Your task to perform on an android device: choose inbox layout in the gmail app Image 0: 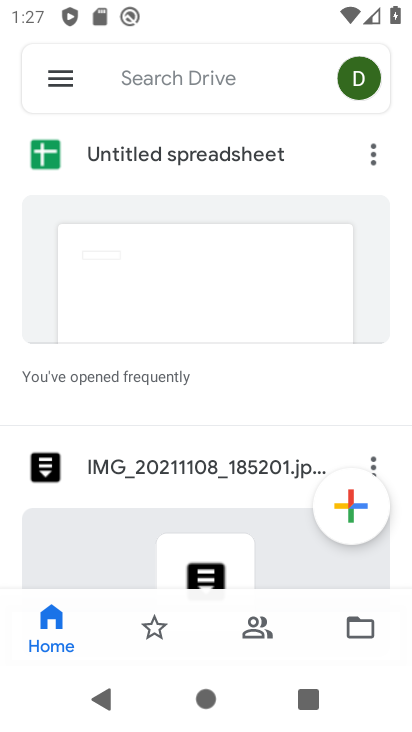
Step 0: press back button
Your task to perform on an android device: choose inbox layout in the gmail app Image 1: 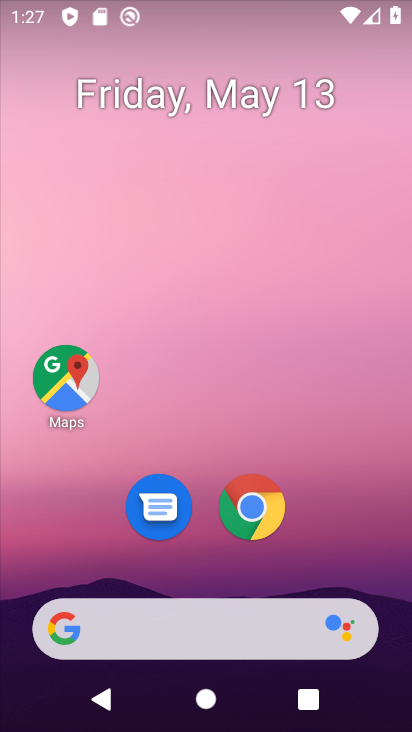
Step 1: drag from (91, 604) to (265, 162)
Your task to perform on an android device: choose inbox layout in the gmail app Image 2: 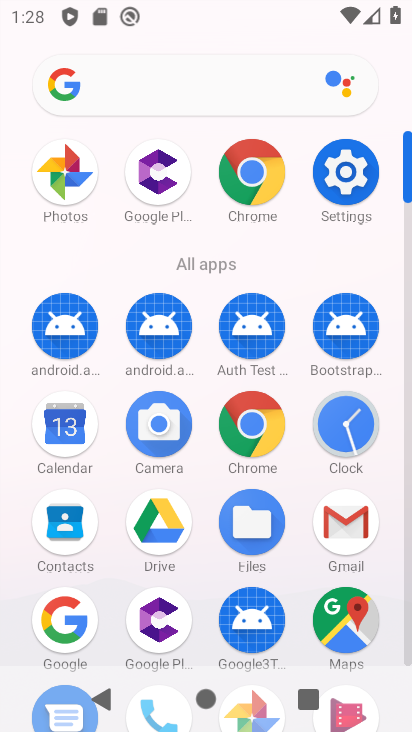
Step 2: click (352, 527)
Your task to perform on an android device: choose inbox layout in the gmail app Image 3: 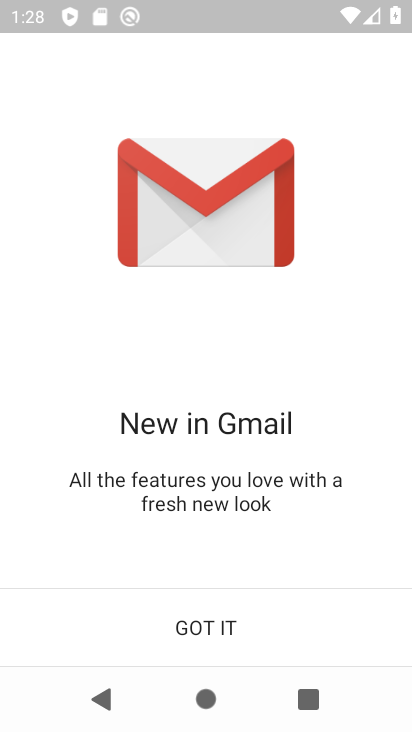
Step 3: click (270, 624)
Your task to perform on an android device: choose inbox layout in the gmail app Image 4: 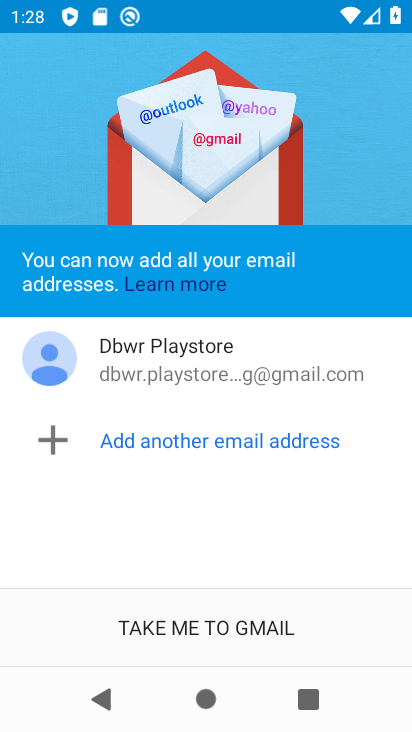
Step 4: click (270, 624)
Your task to perform on an android device: choose inbox layout in the gmail app Image 5: 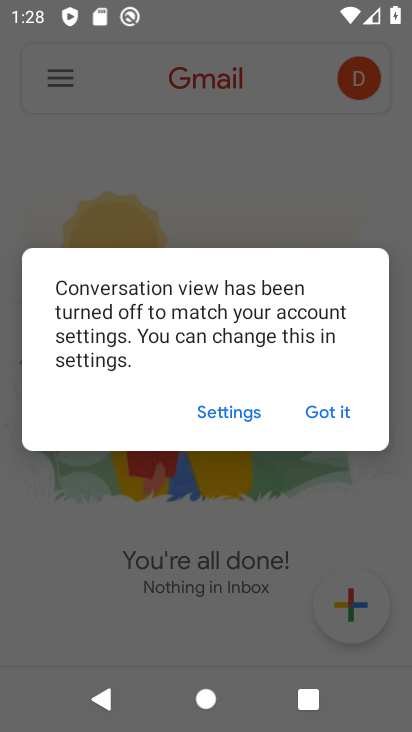
Step 5: click (319, 410)
Your task to perform on an android device: choose inbox layout in the gmail app Image 6: 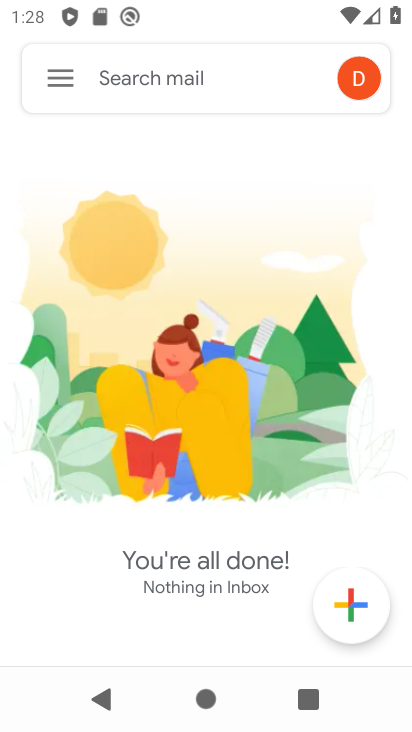
Step 6: click (60, 88)
Your task to perform on an android device: choose inbox layout in the gmail app Image 7: 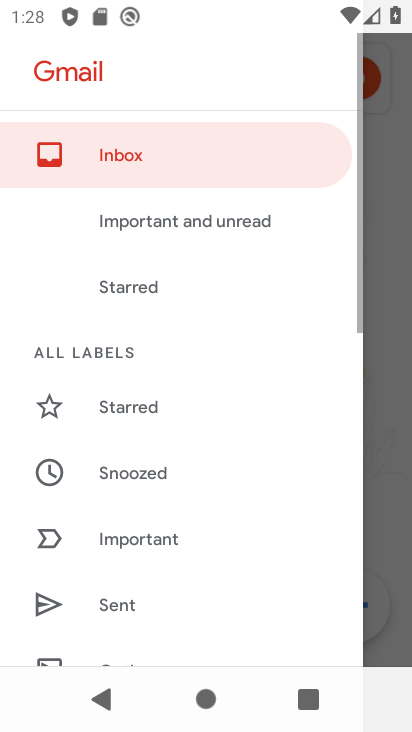
Step 7: drag from (156, 544) to (281, 299)
Your task to perform on an android device: choose inbox layout in the gmail app Image 8: 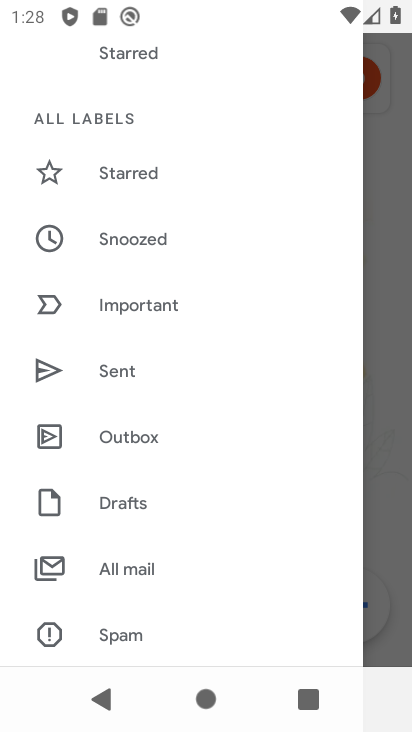
Step 8: drag from (172, 562) to (284, 335)
Your task to perform on an android device: choose inbox layout in the gmail app Image 9: 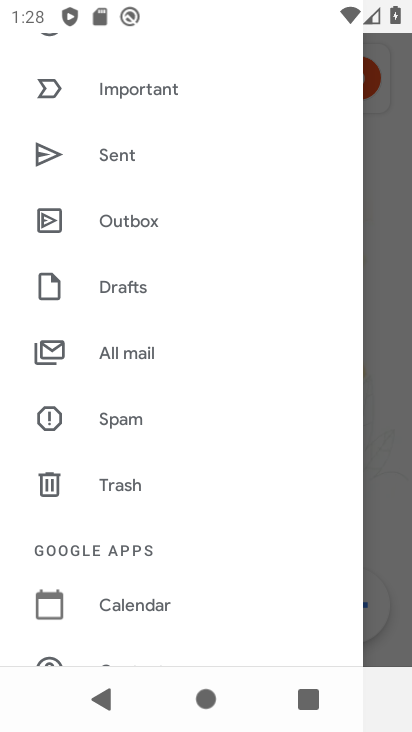
Step 9: drag from (150, 549) to (302, 218)
Your task to perform on an android device: choose inbox layout in the gmail app Image 10: 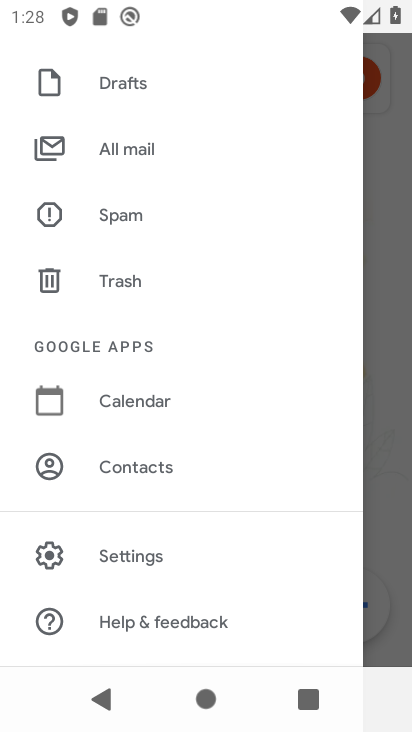
Step 10: click (176, 554)
Your task to perform on an android device: choose inbox layout in the gmail app Image 11: 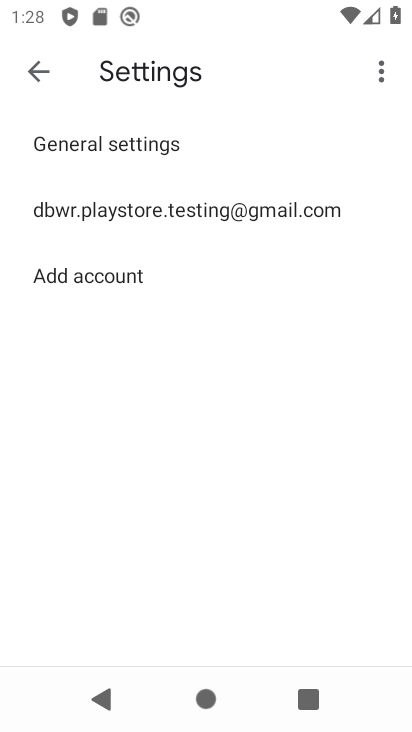
Step 11: click (232, 186)
Your task to perform on an android device: choose inbox layout in the gmail app Image 12: 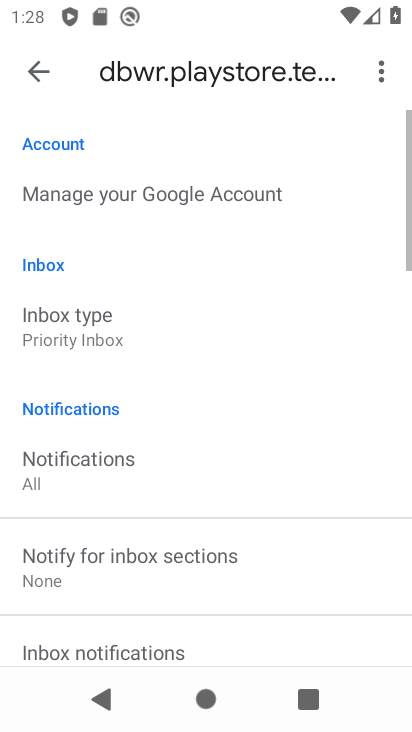
Step 12: click (213, 587)
Your task to perform on an android device: choose inbox layout in the gmail app Image 13: 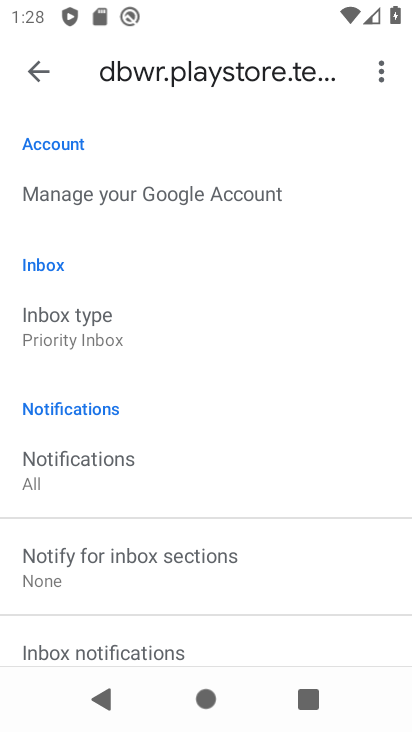
Step 13: click (176, 316)
Your task to perform on an android device: choose inbox layout in the gmail app Image 14: 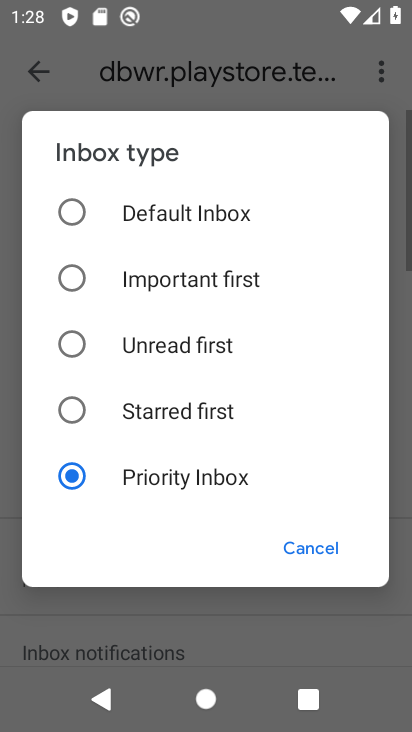
Step 14: click (213, 212)
Your task to perform on an android device: choose inbox layout in the gmail app Image 15: 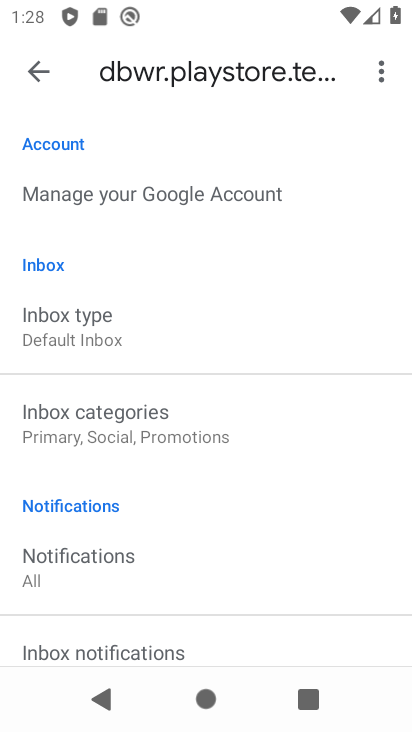
Step 15: task complete